Your task to perform on an android device: Do I have any events this weekend? Image 0: 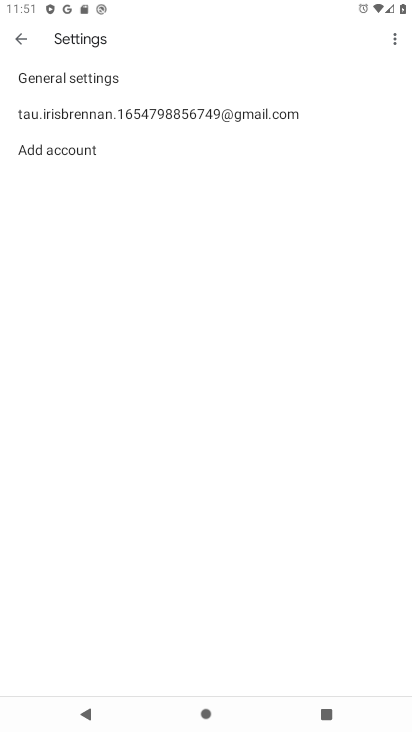
Step 0: press home button
Your task to perform on an android device: Do I have any events this weekend? Image 1: 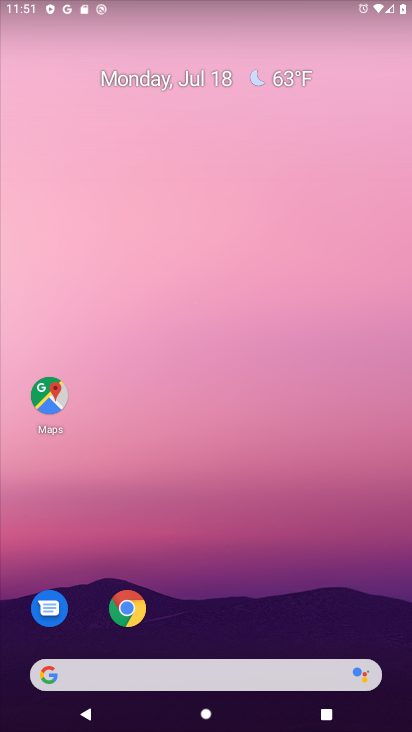
Step 1: drag from (255, 588) to (278, 8)
Your task to perform on an android device: Do I have any events this weekend? Image 2: 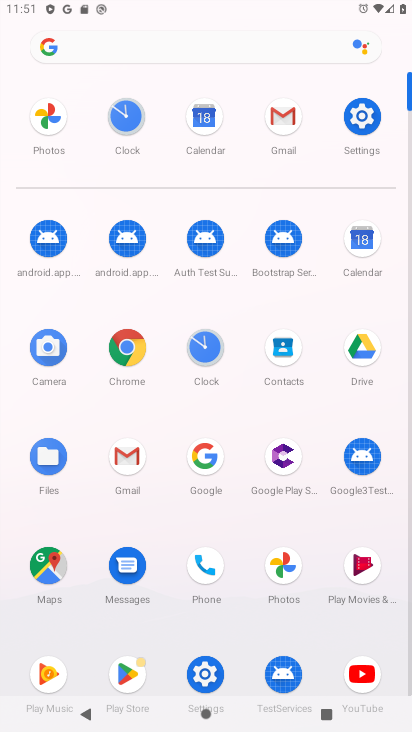
Step 2: click (364, 236)
Your task to perform on an android device: Do I have any events this weekend? Image 3: 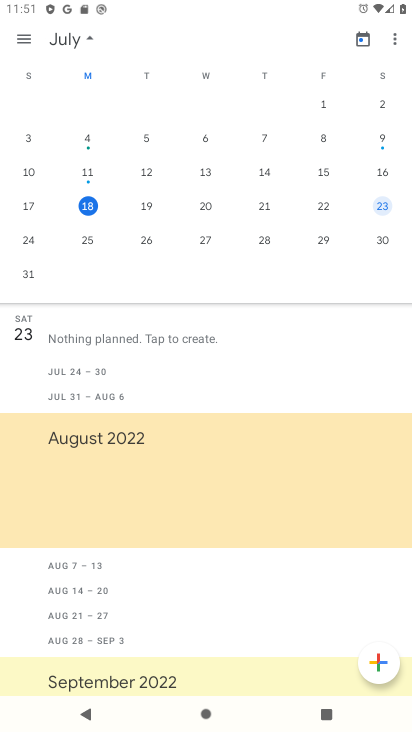
Step 3: click (391, 209)
Your task to perform on an android device: Do I have any events this weekend? Image 4: 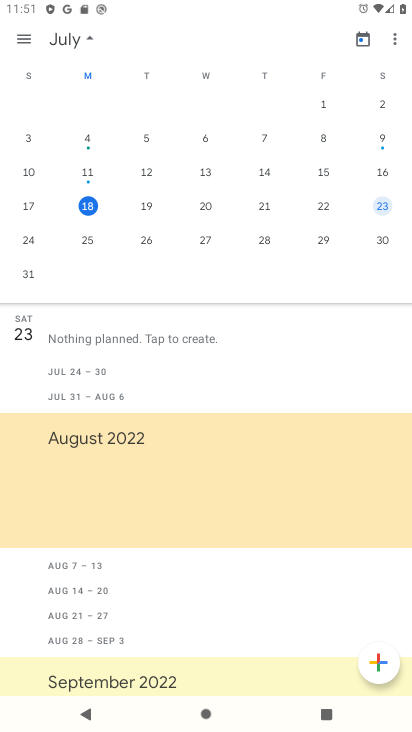
Step 4: click (30, 243)
Your task to perform on an android device: Do I have any events this weekend? Image 5: 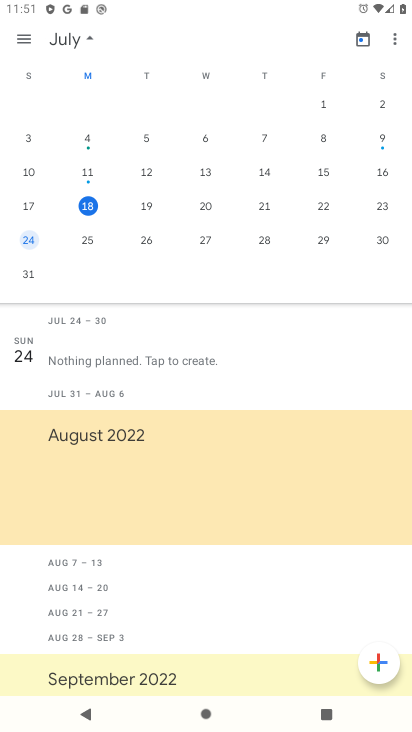
Step 5: task complete